Your task to perform on an android device: Do I have any events today? Image 0: 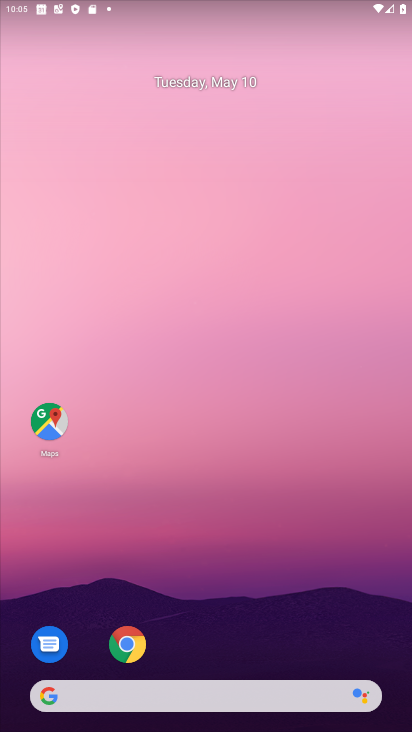
Step 0: drag from (307, 634) to (319, 143)
Your task to perform on an android device: Do I have any events today? Image 1: 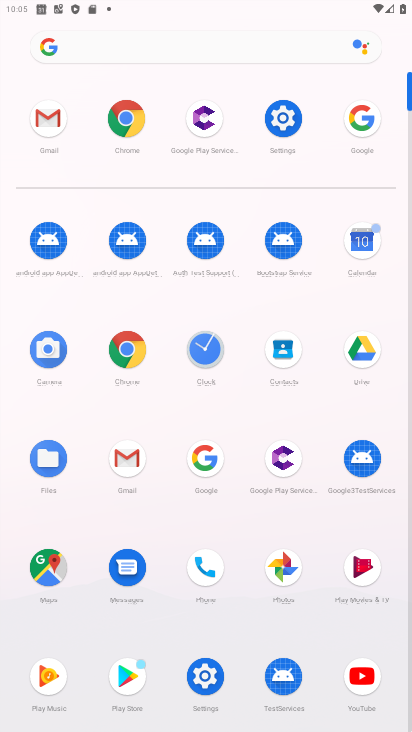
Step 1: click (356, 246)
Your task to perform on an android device: Do I have any events today? Image 2: 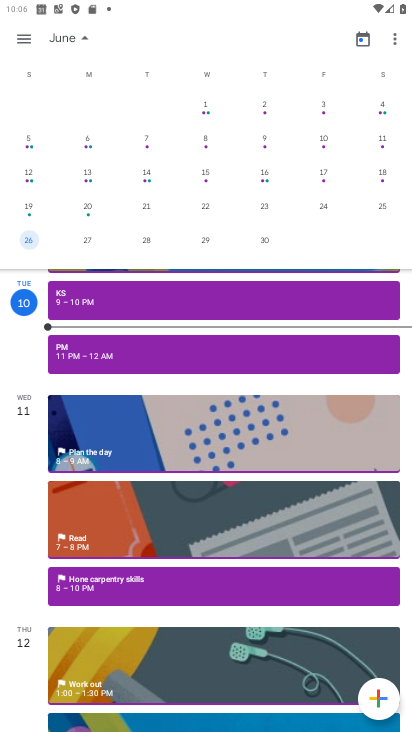
Step 2: drag from (60, 196) to (411, 196)
Your task to perform on an android device: Do I have any events today? Image 3: 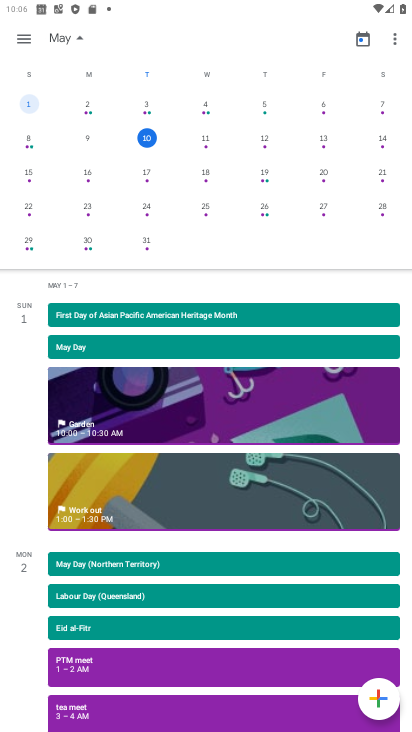
Step 3: click (151, 140)
Your task to perform on an android device: Do I have any events today? Image 4: 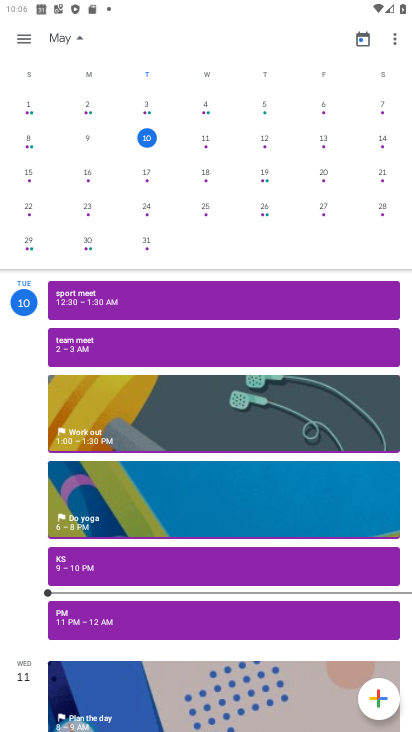
Step 4: task complete